Your task to perform on an android device: find which apps use the phone's location Image 0: 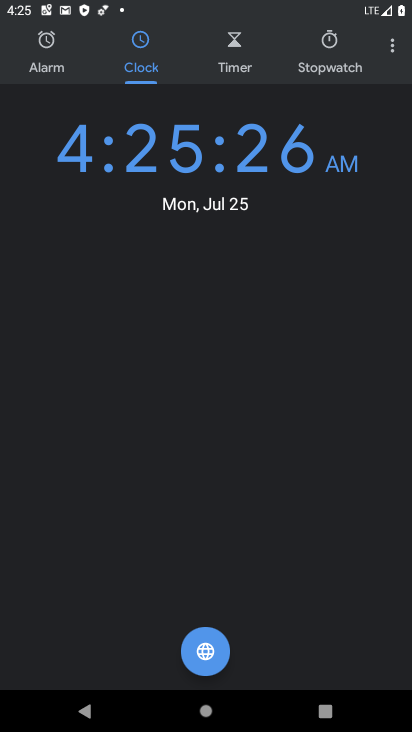
Step 0: press home button
Your task to perform on an android device: find which apps use the phone's location Image 1: 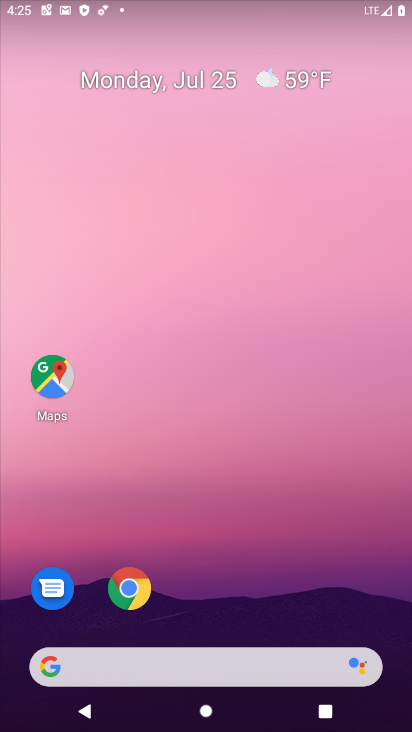
Step 1: drag from (314, 591) to (345, 93)
Your task to perform on an android device: find which apps use the phone's location Image 2: 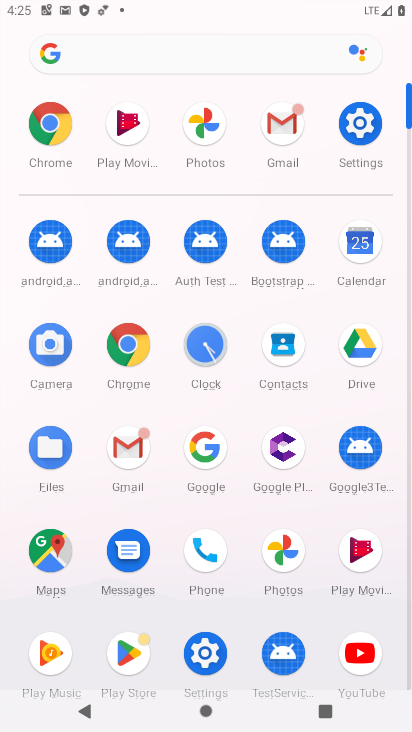
Step 2: click (191, 540)
Your task to perform on an android device: find which apps use the phone's location Image 3: 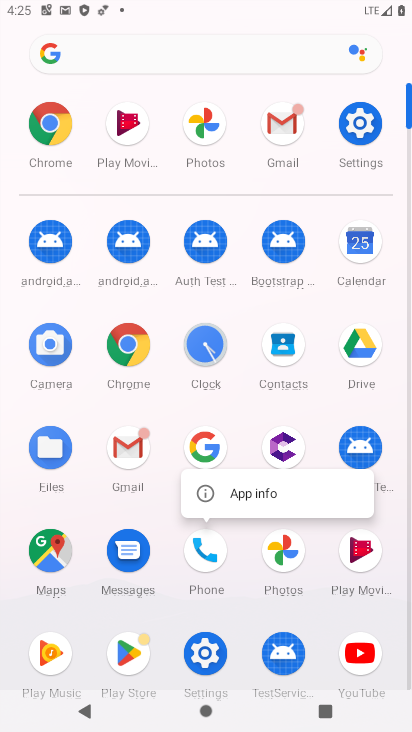
Step 3: click (251, 493)
Your task to perform on an android device: find which apps use the phone's location Image 4: 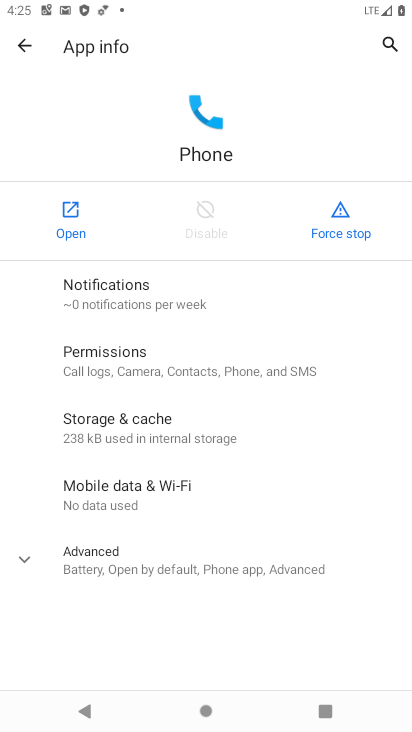
Step 4: click (98, 366)
Your task to perform on an android device: find which apps use the phone's location Image 5: 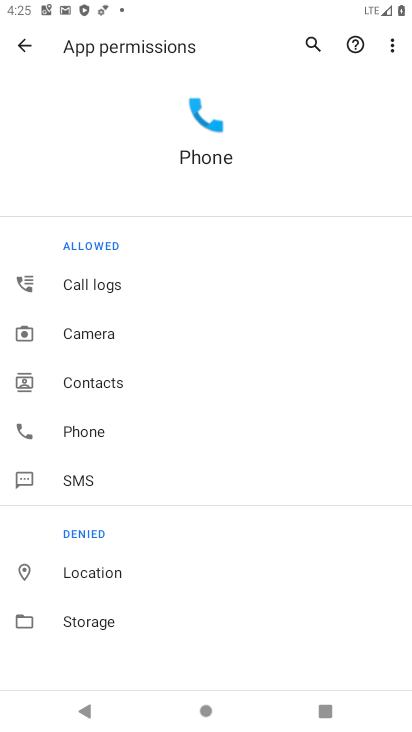
Step 5: click (78, 432)
Your task to perform on an android device: find which apps use the phone's location Image 6: 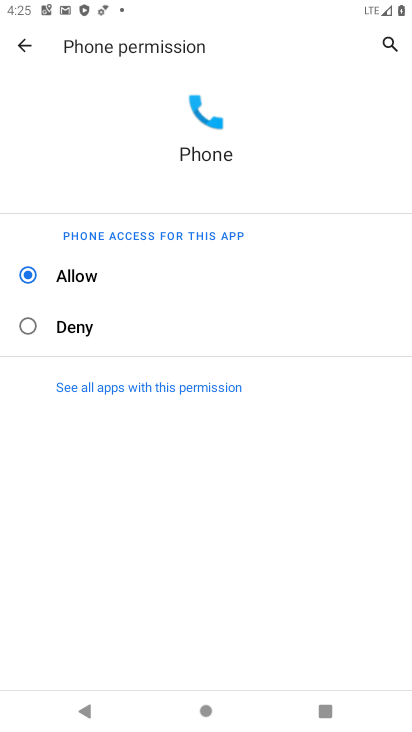
Step 6: task complete